Your task to perform on an android device: Open the camera Image 0: 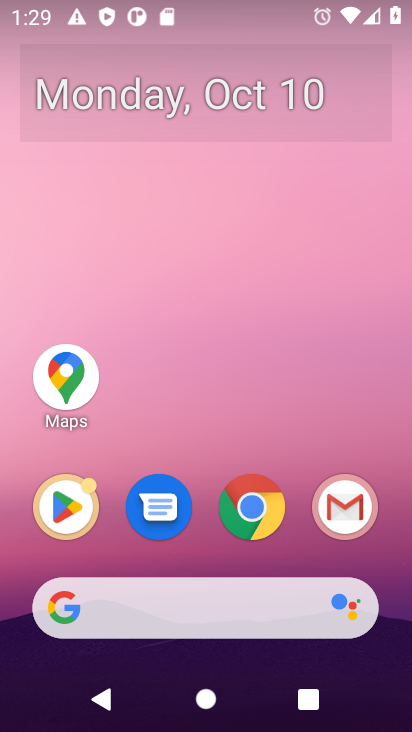
Step 0: drag from (388, 573) to (396, 139)
Your task to perform on an android device: Open the camera Image 1: 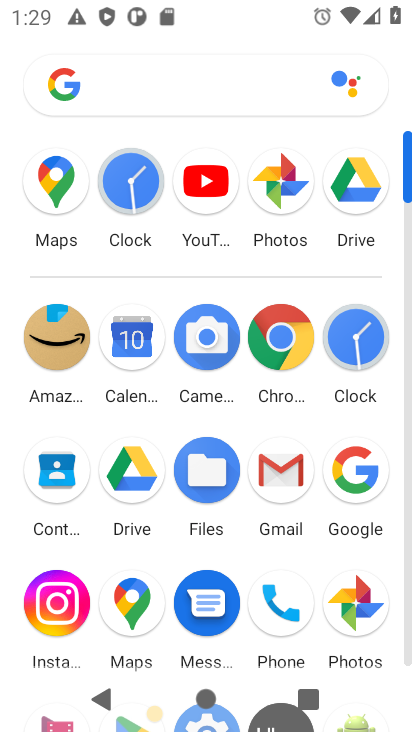
Step 1: task complete